Your task to perform on an android device: Open internet settings Image 0: 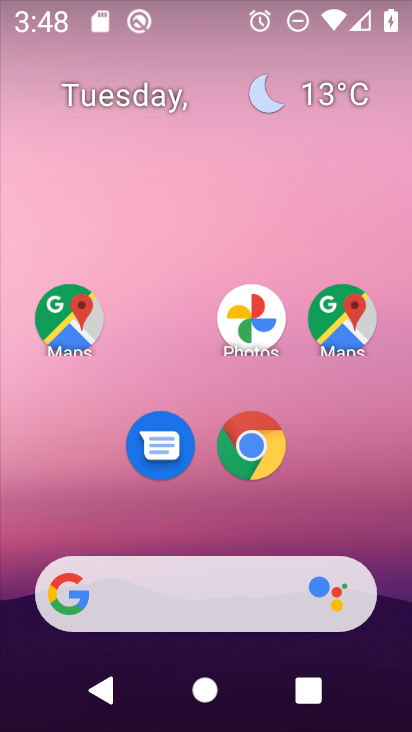
Step 0: drag from (389, 531) to (387, 213)
Your task to perform on an android device: Open internet settings Image 1: 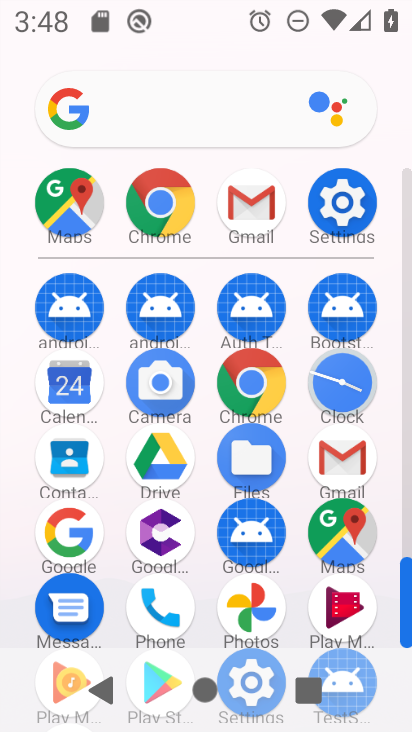
Step 1: click (353, 221)
Your task to perform on an android device: Open internet settings Image 2: 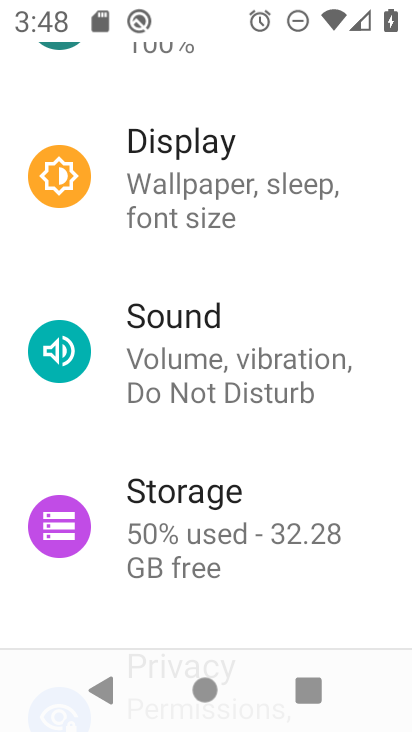
Step 2: drag from (377, 593) to (382, 491)
Your task to perform on an android device: Open internet settings Image 3: 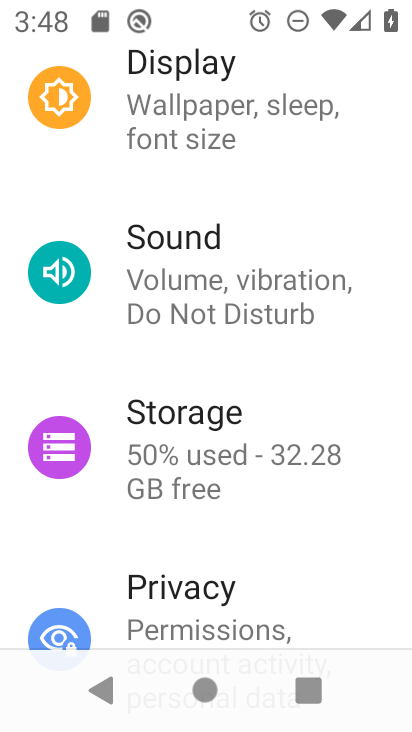
Step 3: drag from (381, 602) to (392, 465)
Your task to perform on an android device: Open internet settings Image 4: 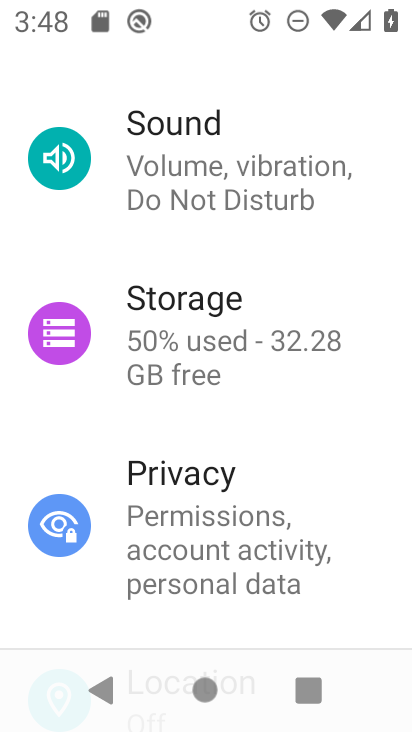
Step 4: drag from (341, 579) to (365, 483)
Your task to perform on an android device: Open internet settings Image 5: 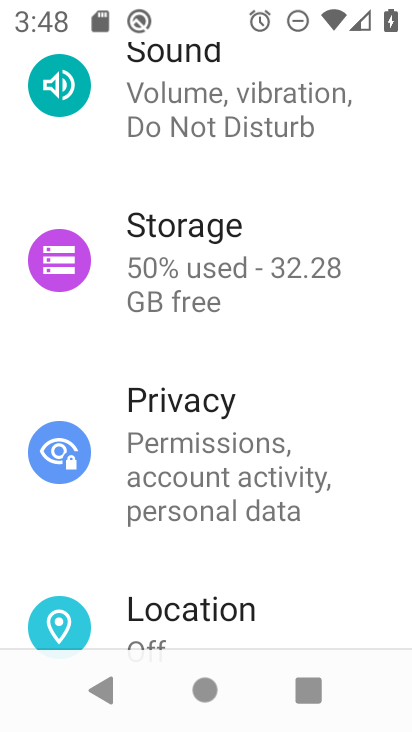
Step 5: drag from (350, 581) to (361, 494)
Your task to perform on an android device: Open internet settings Image 6: 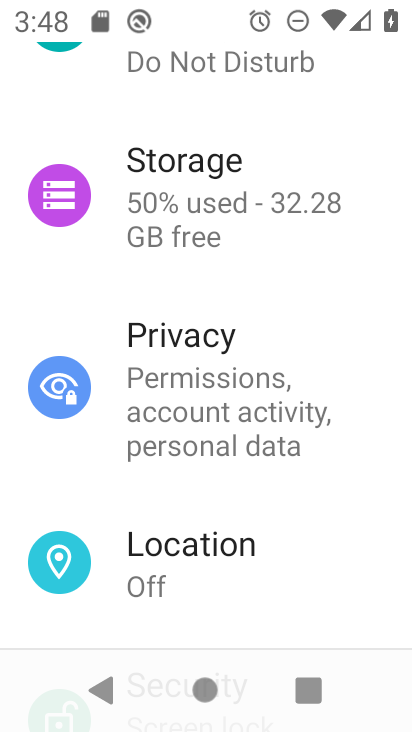
Step 6: drag from (350, 590) to (350, 469)
Your task to perform on an android device: Open internet settings Image 7: 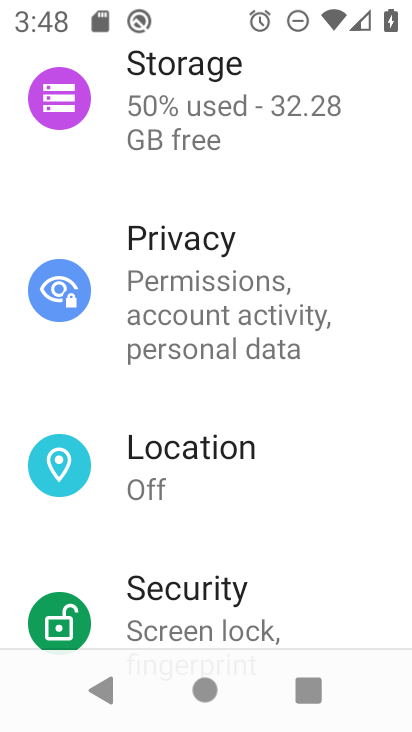
Step 7: drag from (342, 608) to (347, 486)
Your task to perform on an android device: Open internet settings Image 8: 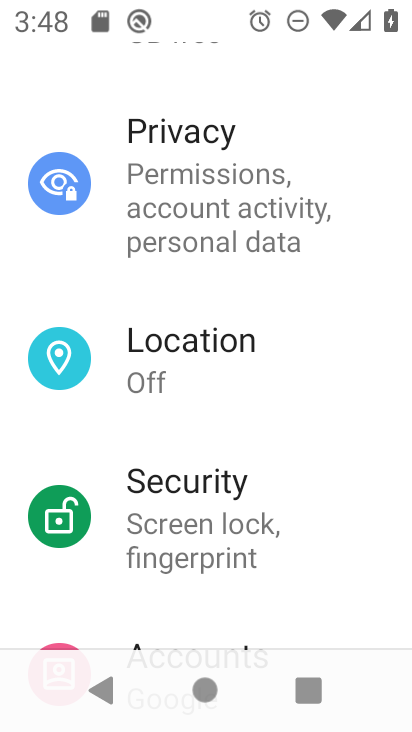
Step 8: drag from (340, 542) to (345, 431)
Your task to perform on an android device: Open internet settings Image 9: 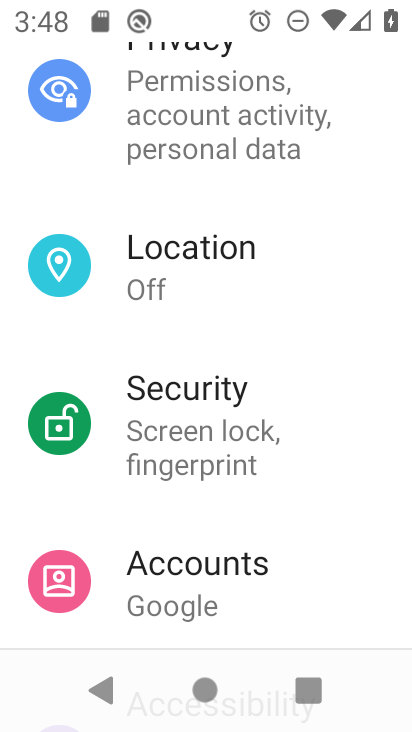
Step 9: drag from (337, 567) to (346, 455)
Your task to perform on an android device: Open internet settings Image 10: 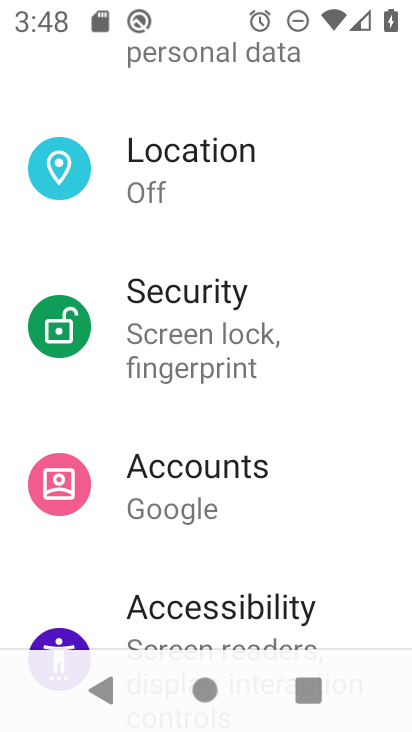
Step 10: drag from (367, 342) to (362, 403)
Your task to perform on an android device: Open internet settings Image 11: 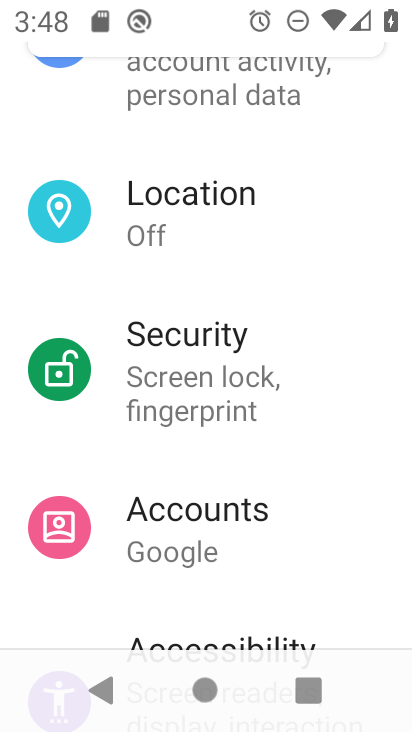
Step 11: drag from (344, 311) to (351, 444)
Your task to perform on an android device: Open internet settings Image 12: 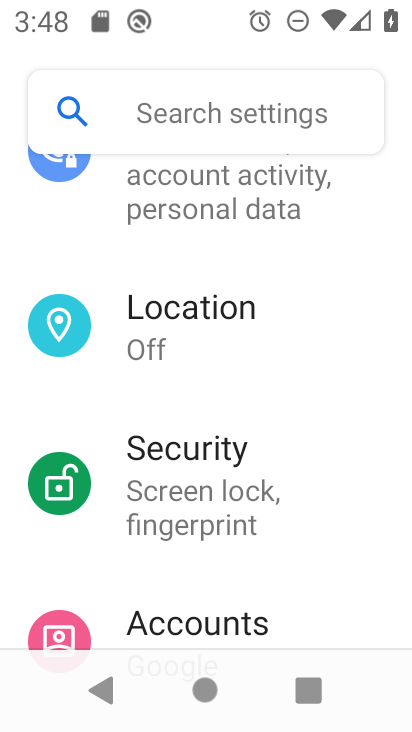
Step 12: drag from (368, 246) to (361, 360)
Your task to perform on an android device: Open internet settings Image 13: 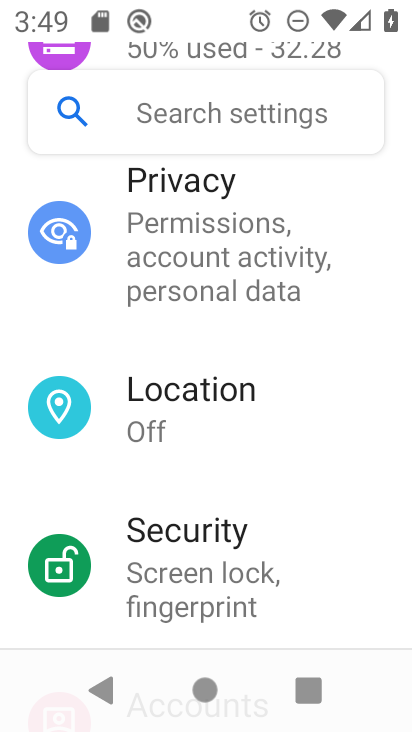
Step 13: drag from (355, 250) to (349, 354)
Your task to perform on an android device: Open internet settings Image 14: 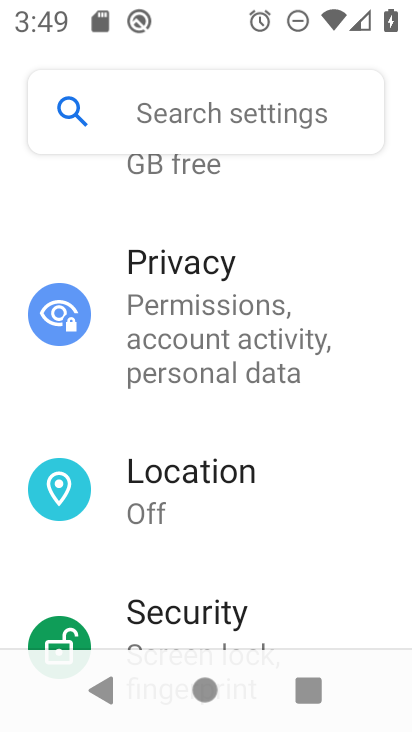
Step 14: drag from (346, 217) to (347, 371)
Your task to perform on an android device: Open internet settings Image 15: 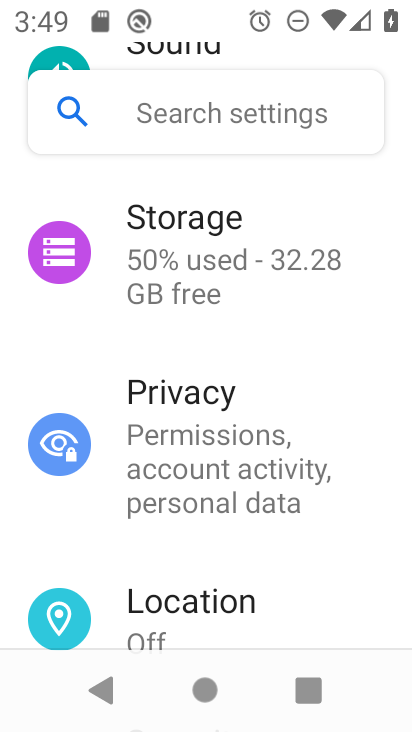
Step 15: drag from (366, 209) to (368, 340)
Your task to perform on an android device: Open internet settings Image 16: 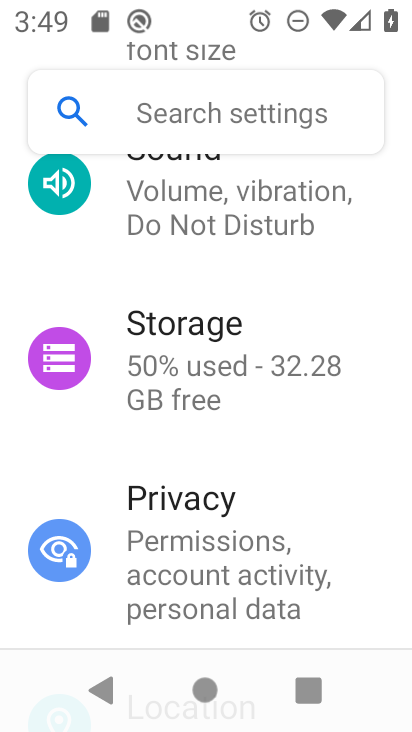
Step 16: drag from (362, 246) to (351, 336)
Your task to perform on an android device: Open internet settings Image 17: 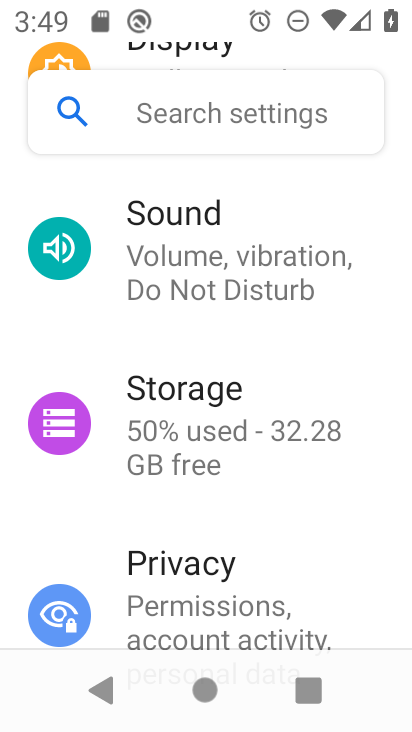
Step 17: drag from (357, 215) to (348, 365)
Your task to perform on an android device: Open internet settings Image 18: 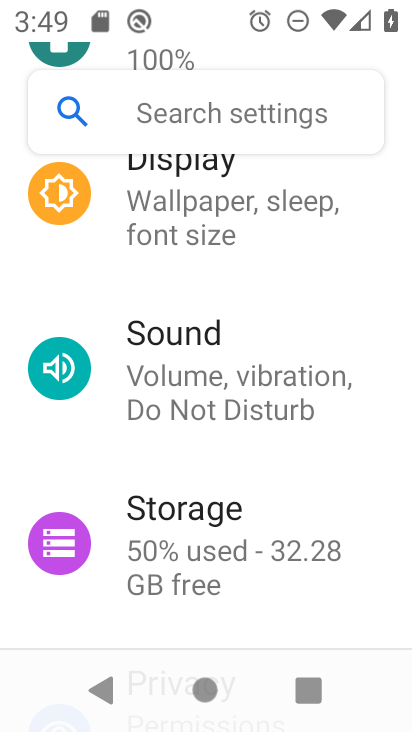
Step 18: drag from (371, 215) to (371, 376)
Your task to perform on an android device: Open internet settings Image 19: 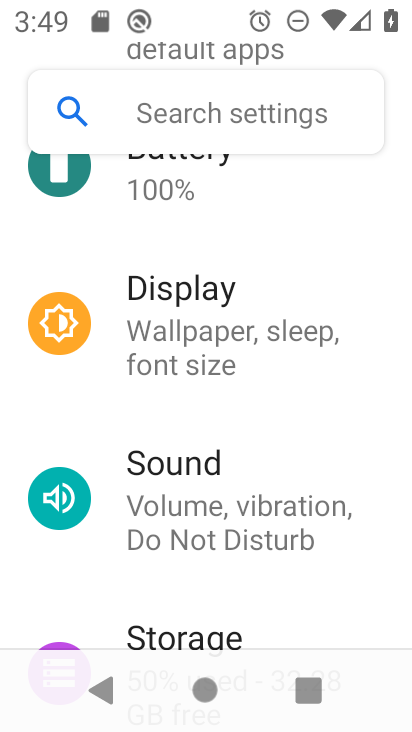
Step 19: drag from (359, 233) to (372, 371)
Your task to perform on an android device: Open internet settings Image 20: 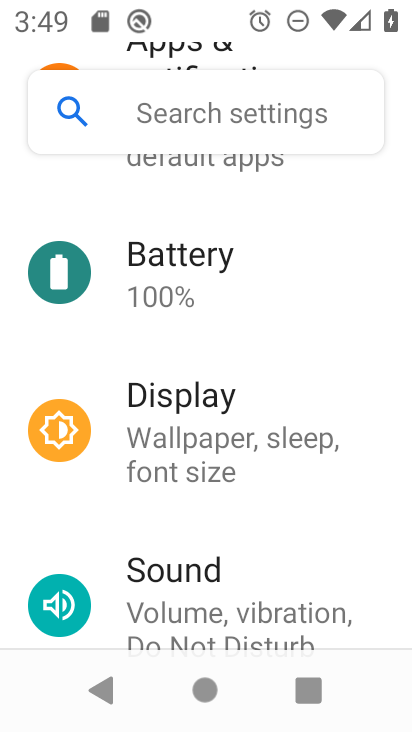
Step 20: drag from (358, 218) to (353, 344)
Your task to perform on an android device: Open internet settings Image 21: 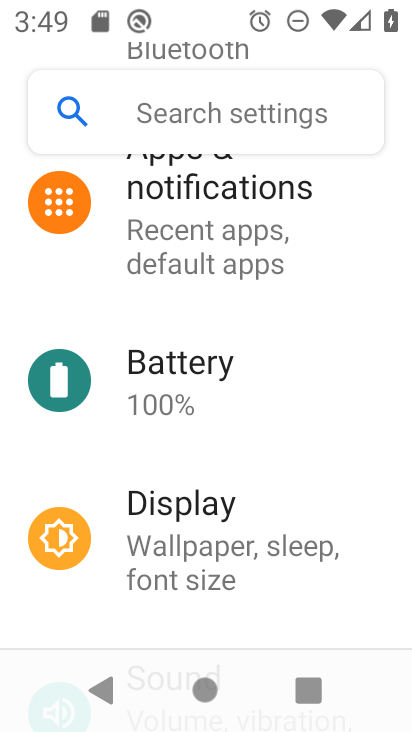
Step 21: drag from (331, 197) to (344, 326)
Your task to perform on an android device: Open internet settings Image 22: 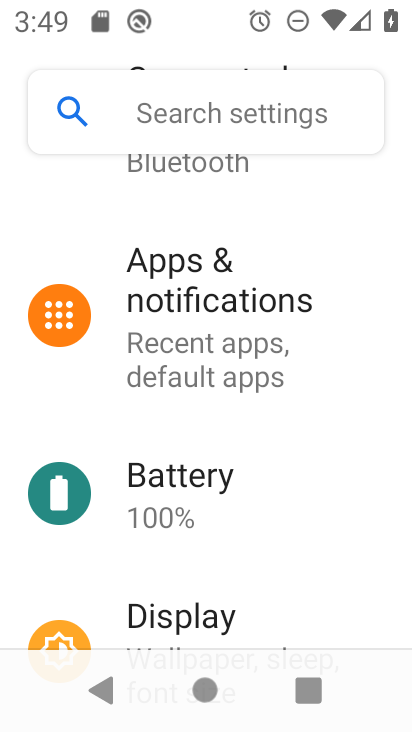
Step 22: drag from (350, 205) to (352, 319)
Your task to perform on an android device: Open internet settings Image 23: 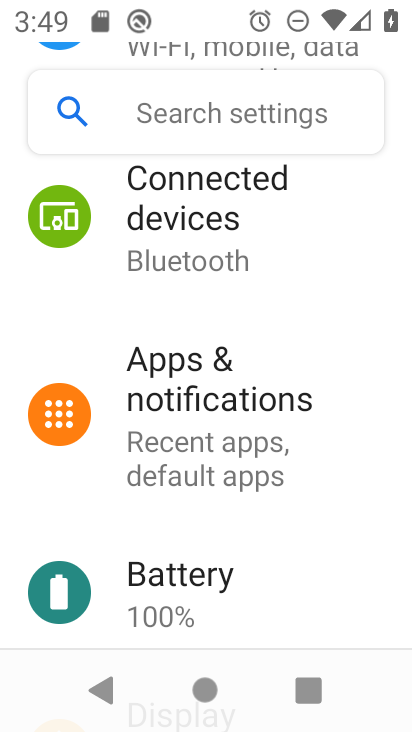
Step 23: drag from (355, 175) to (339, 301)
Your task to perform on an android device: Open internet settings Image 24: 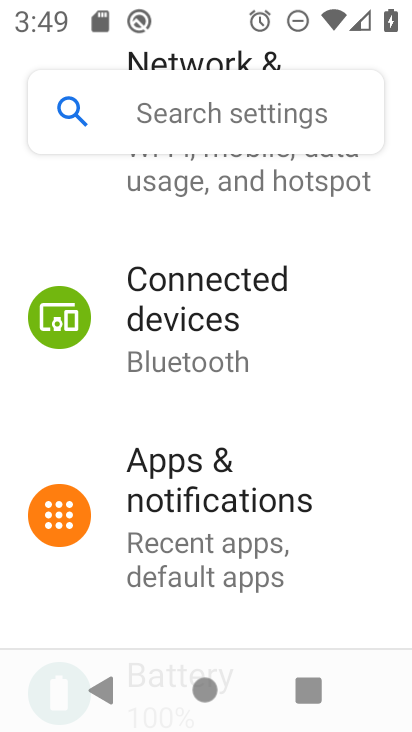
Step 24: drag from (330, 256) to (353, 452)
Your task to perform on an android device: Open internet settings Image 25: 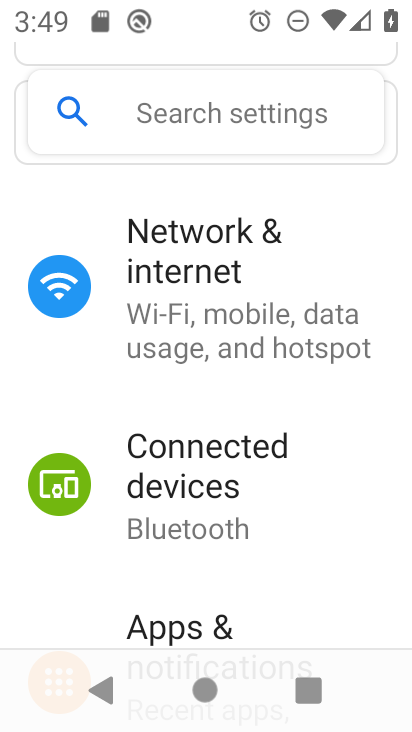
Step 25: click (219, 307)
Your task to perform on an android device: Open internet settings Image 26: 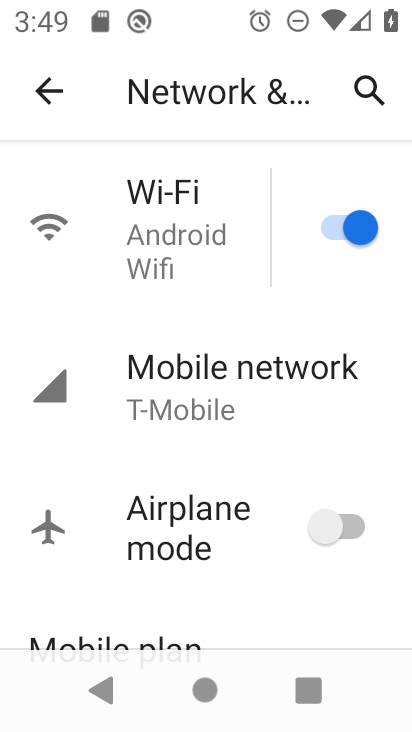
Step 26: task complete